Your task to perform on an android device: Go to Maps Image 0: 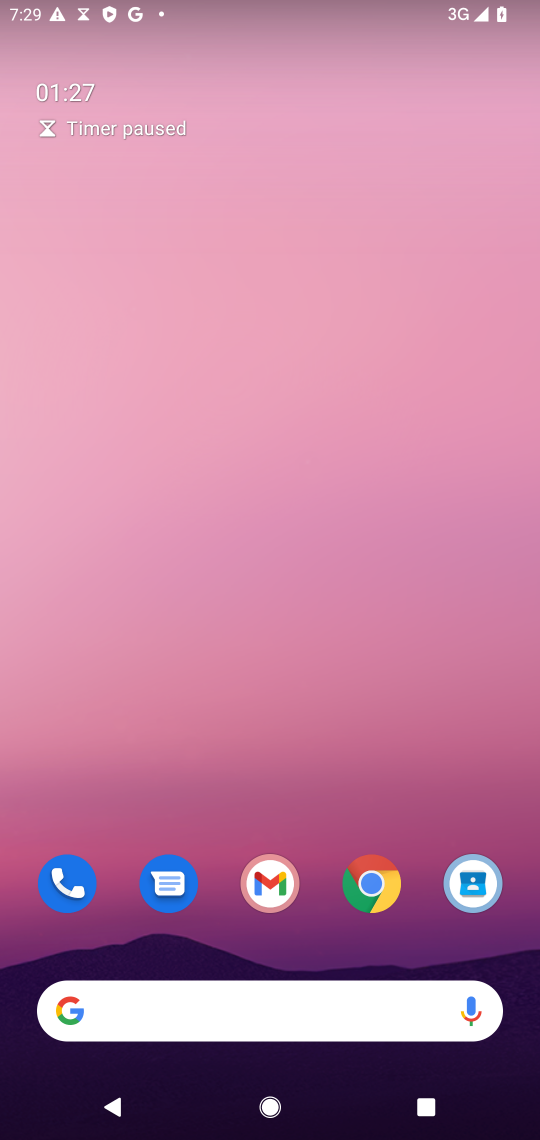
Step 0: drag from (248, 1021) to (299, 262)
Your task to perform on an android device: Go to Maps Image 1: 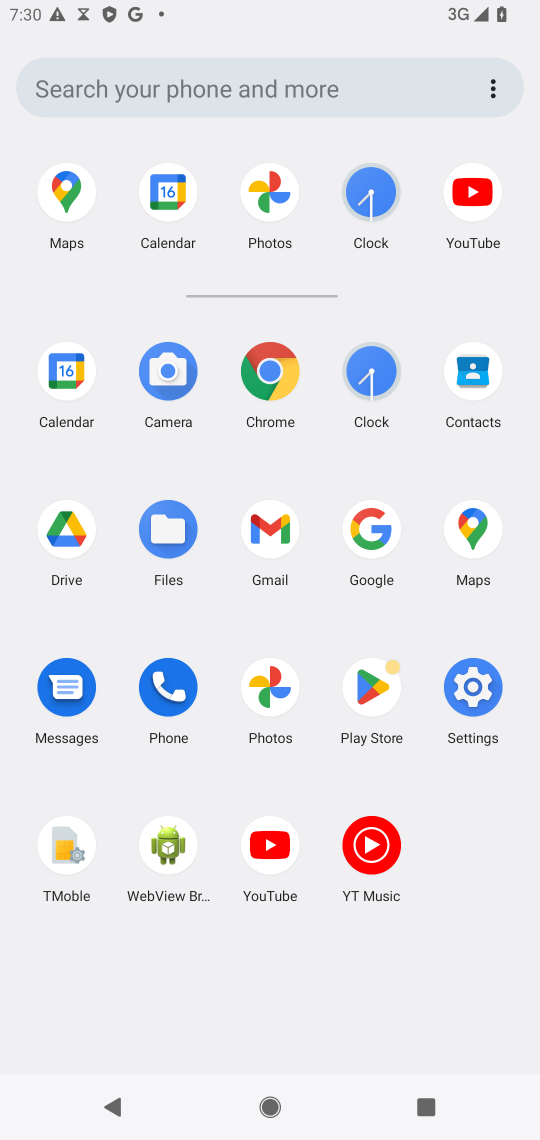
Step 1: click (71, 191)
Your task to perform on an android device: Go to Maps Image 2: 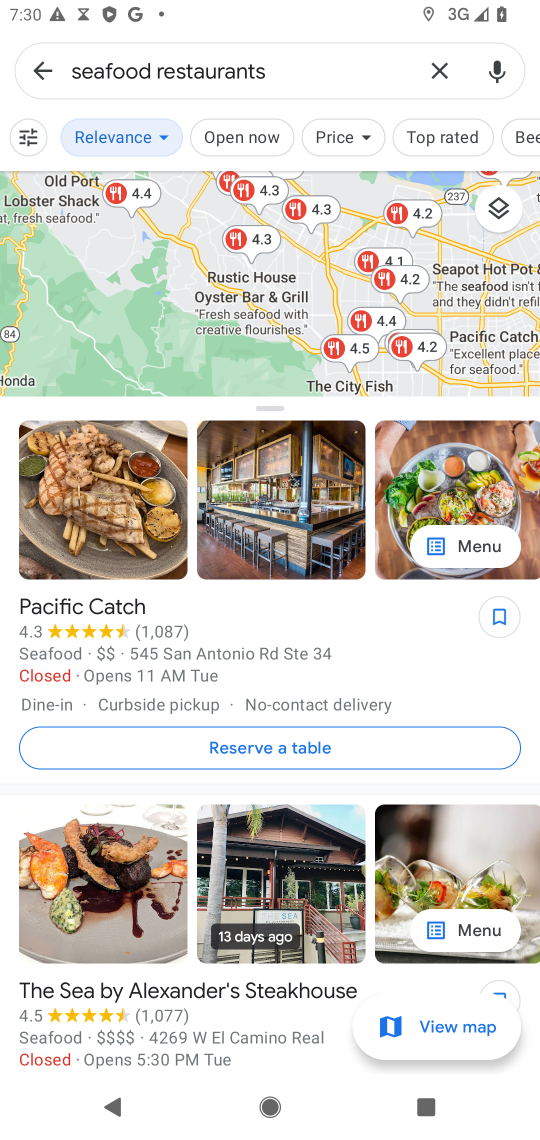
Step 2: task complete